Your task to perform on an android device: turn on javascript in the chrome app Image 0: 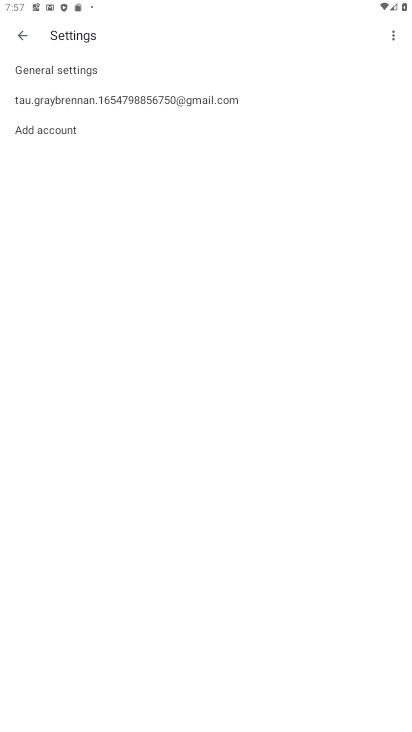
Step 0: press home button
Your task to perform on an android device: turn on javascript in the chrome app Image 1: 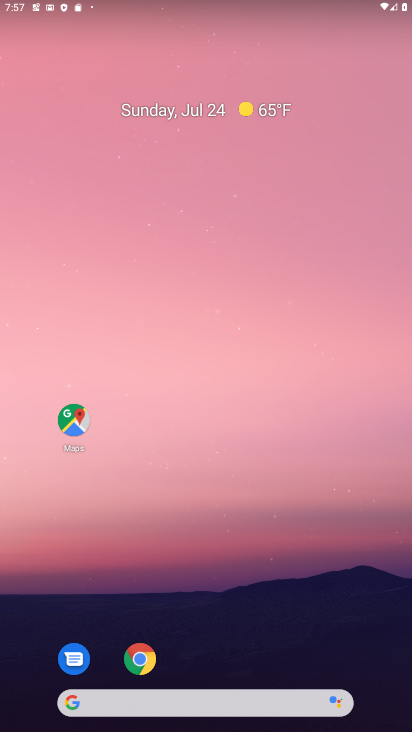
Step 1: click (144, 659)
Your task to perform on an android device: turn on javascript in the chrome app Image 2: 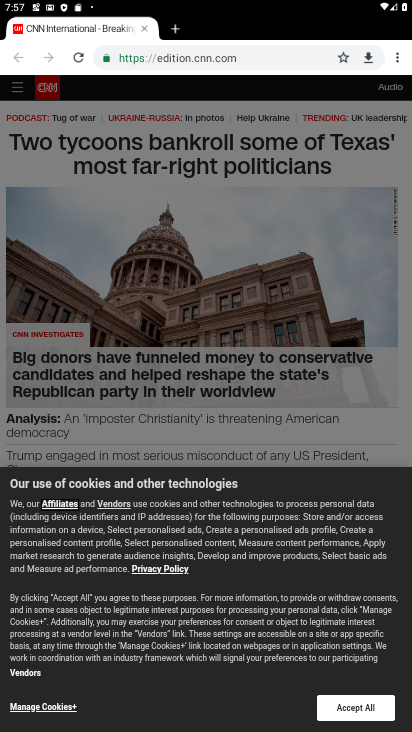
Step 2: click (397, 61)
Your task to perform on an android device: turn on javascript in the chrome app Image 3: 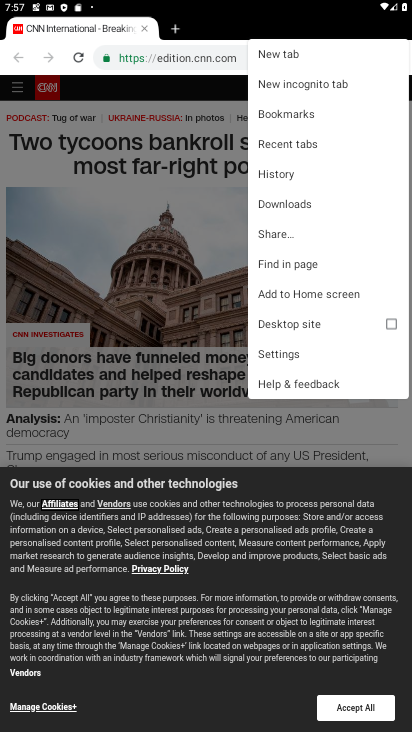
Step 3: click (284, 355)
Your task to perform on an android device: turn on javascript in the chrome app Image 4: 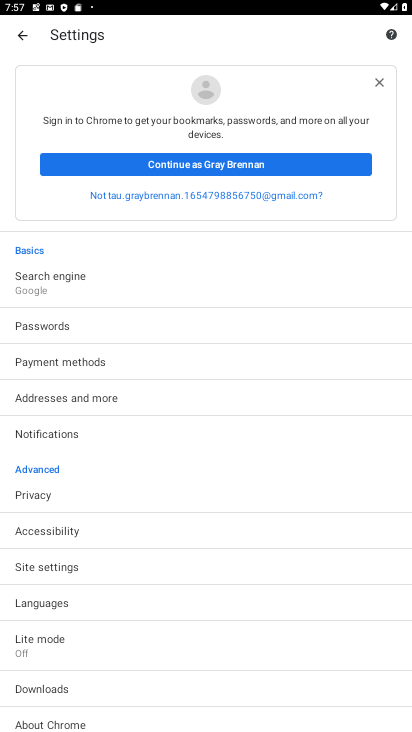
Step 4: click (39, 571)
Your task to perform on an android device: turn on javascript in the chrome app Image 5: 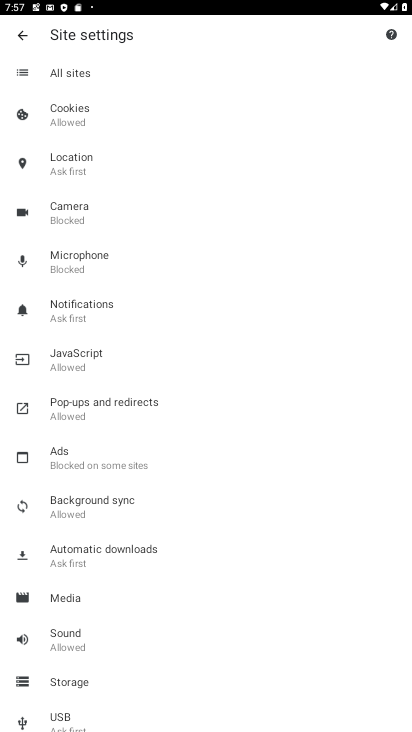
Step 5: click (84, 350)
Your task to perform on an android device: turn on javascript in the chrome app Image 6: 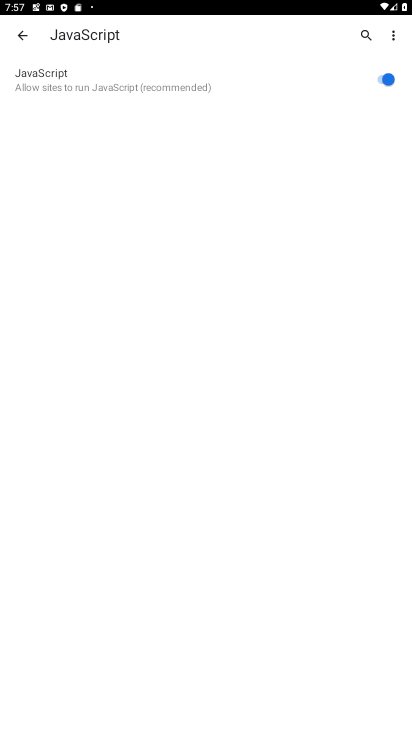
Step 6: task complete